Your task to perform on an android device: Go to CNN.com Image 0: 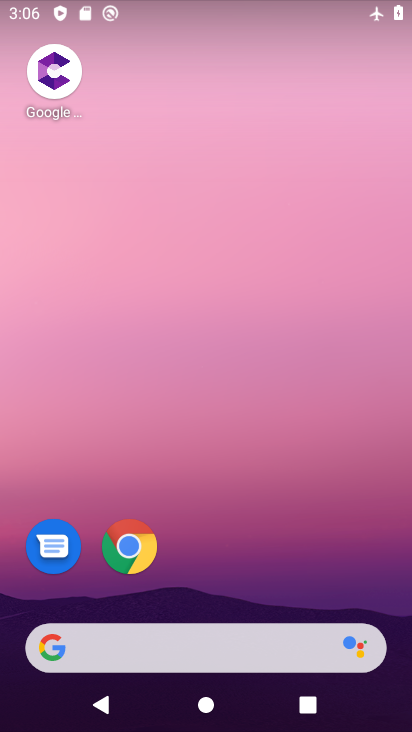
Step 0: click (136, 562)
Your task to perform on an android device: Go to CNN.com Image 1: 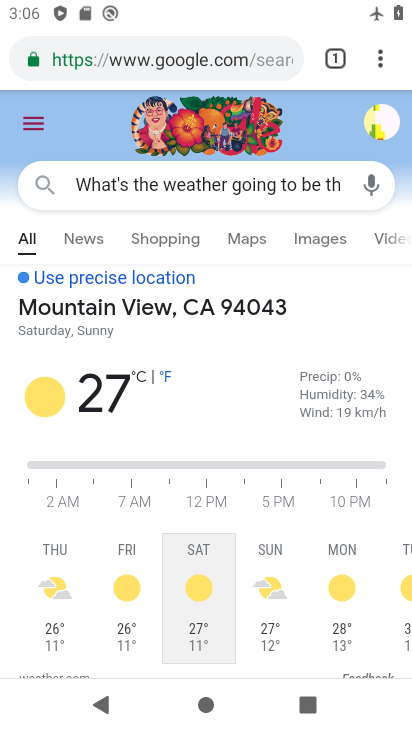
Step 1: click (256, 57)
Your task to perform on an android device: Go to CNN.com Image 2: 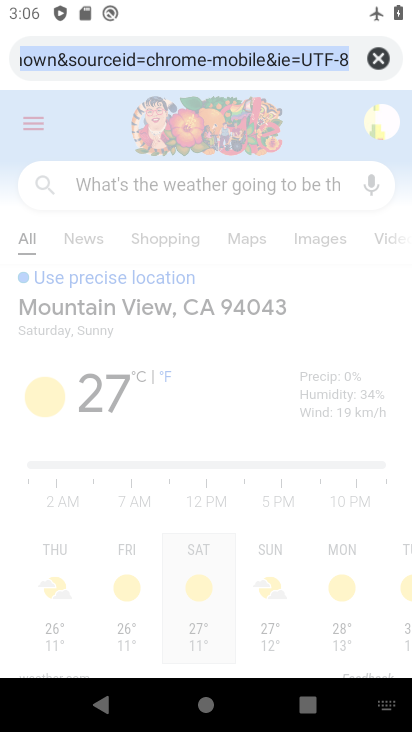
Step 2: type "cnn.com"
Your task to perform on an android device: Go to CNN.com Image 3: 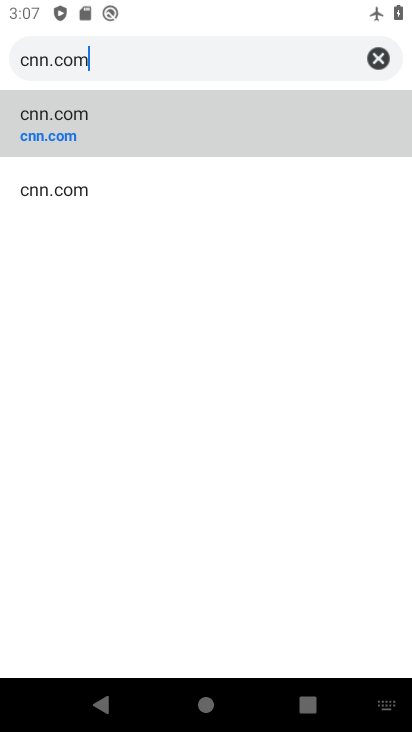
Step 3: click (64, 134)
Your task to perform on an android device: Go to CNN.com Image 4: 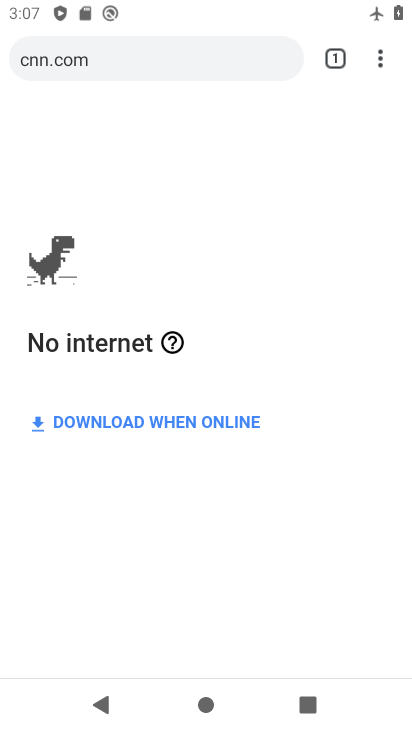
Step 4: task complete